Your task to perform on an android device: What's on my calendar today? Image 0: 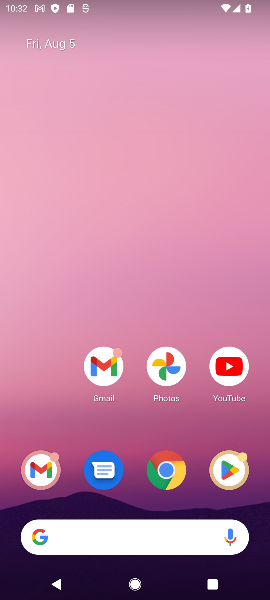
Step 0: drag from (152, 524) to (147, 74)
Your task to perform on an android device: What's on my calendar today? Image 1: 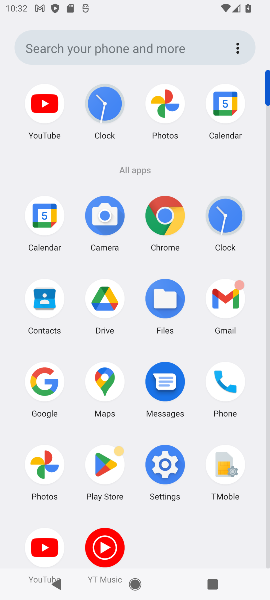
Step 1: click (44, 212)
Your task to perform on an android device: What's on my calendar today? Image 2: 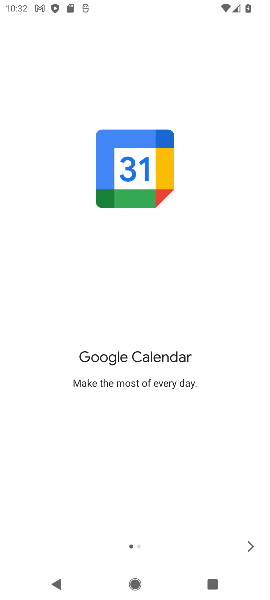
Step 2: click (253, 550)
Your task to perform on an android device: What's on my calendar today? Image 3: 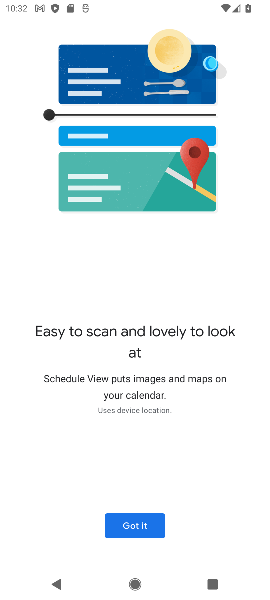
Step 3: click (123, 528)
Your task to perform on an android device: What's on my calendar today? Image 4: 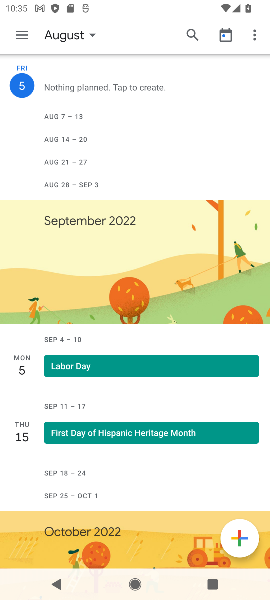
Step 4: task complete